Your task to perform on an android device: Open wifi settings Image 0: 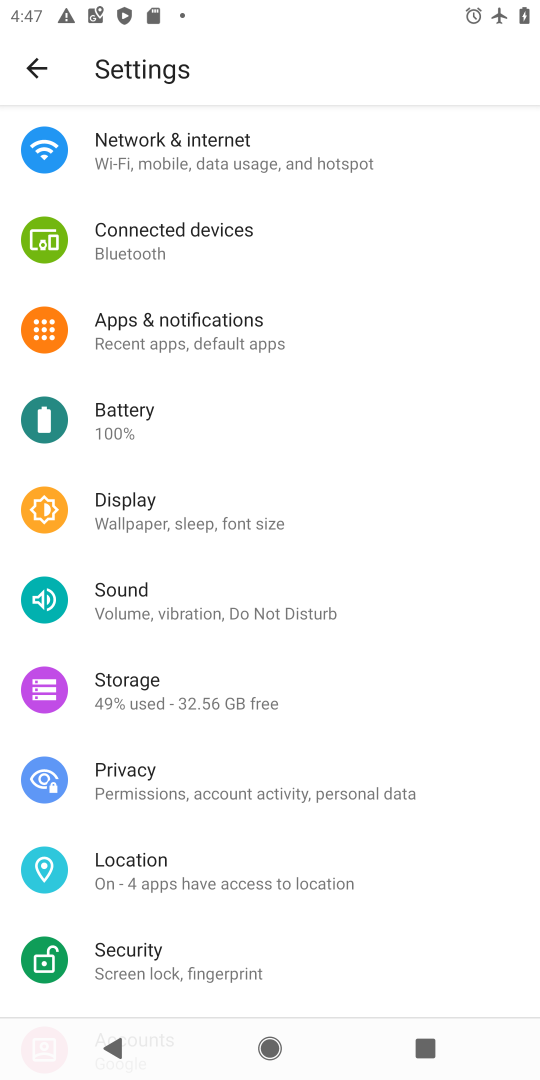
Step 0: click (244, 154)
Your task to perform on an android device: Open wifi settings Image 1: 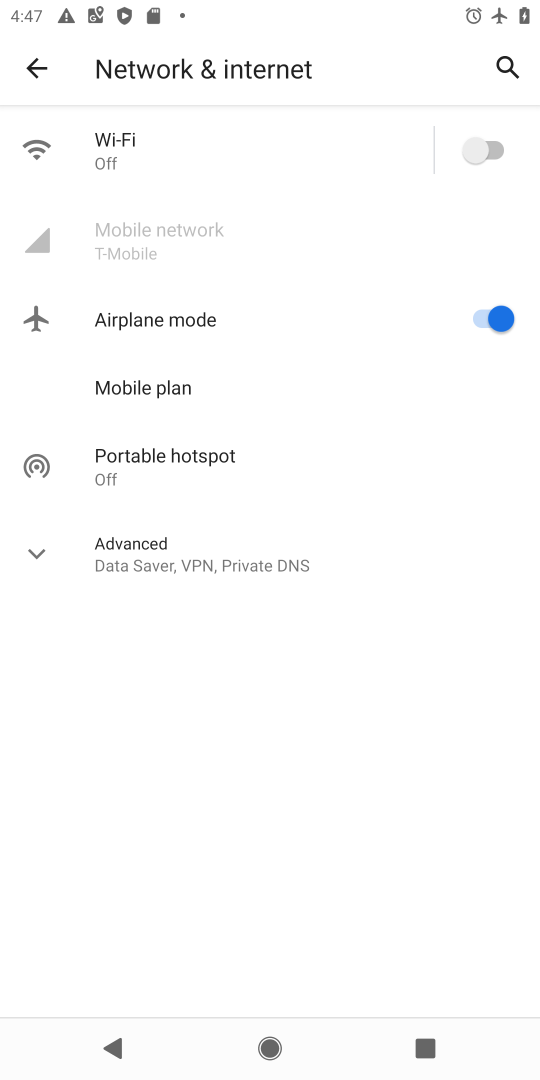
Step 1: click (218, 144)
Your task to perform on an android device: Open wifi settings Image 2: 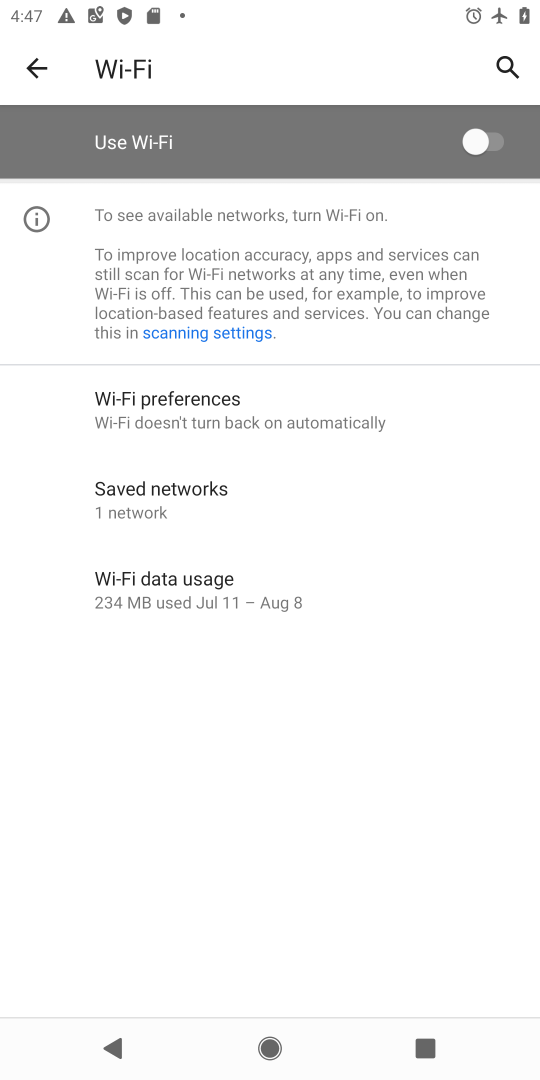
Step 2: click (466, 138)
Your task to perform on an android device: Open wifi settings Image 3: 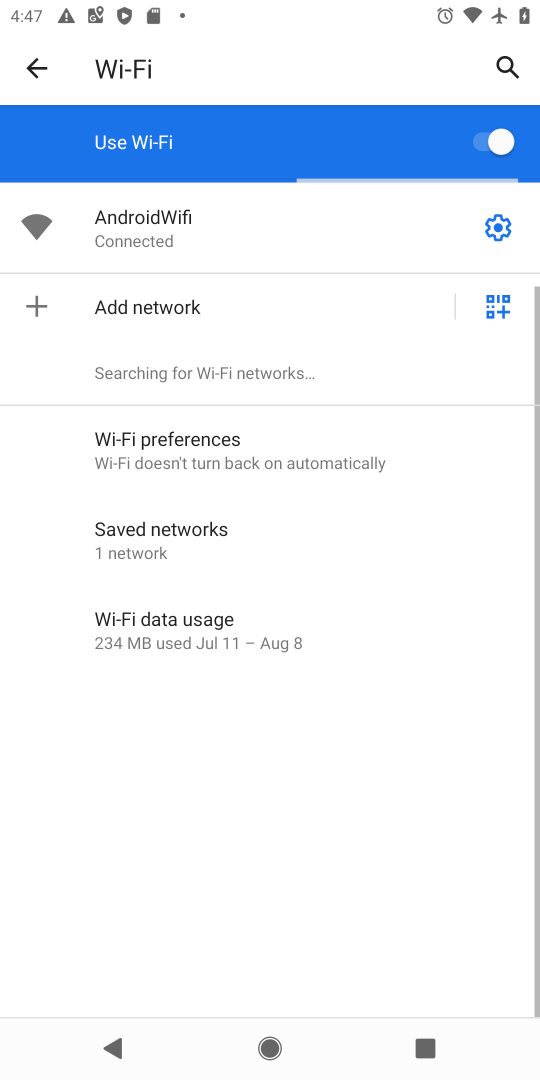
Step 3: click (507, 230)
Your task to perform on an android device: Open wifi settings Image 4: 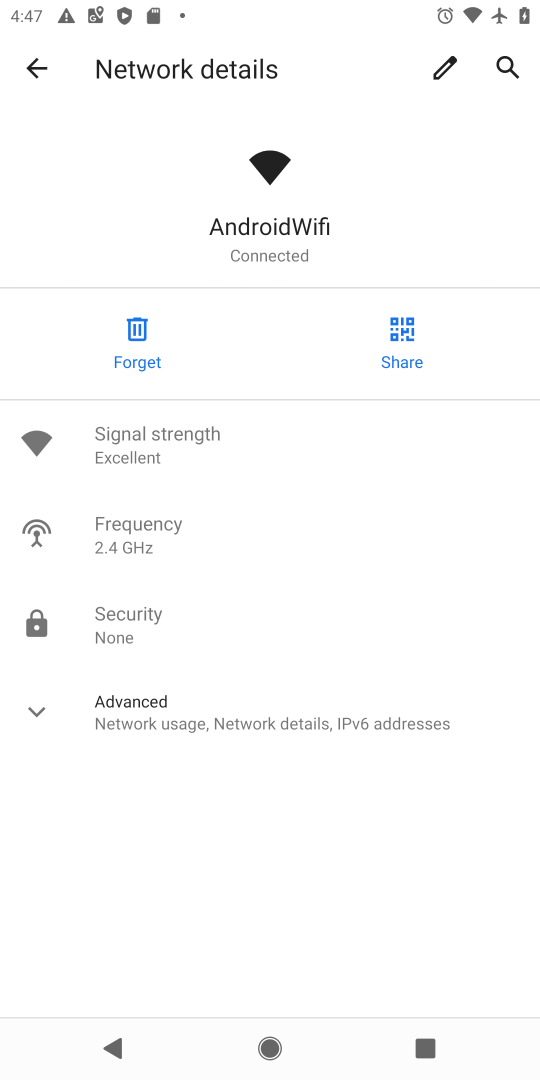
Step 4: task complete